Your task to perform on an android device: star an email in the gmail app Image 0: 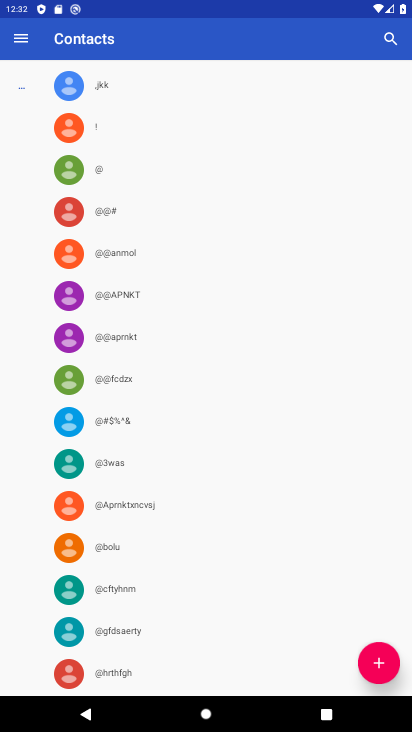
Step 0: press home button
Your task to perform on an android device: star an email in the gmail app Image 1: 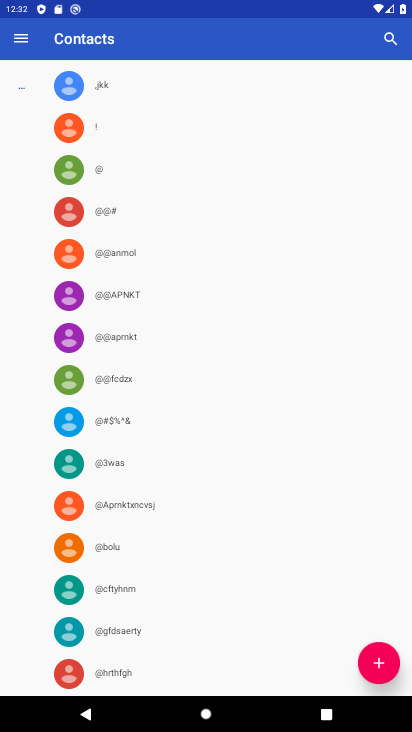
Step 1: press home button
Your task to perform on an android device: star an email in the gmail app Image 2: 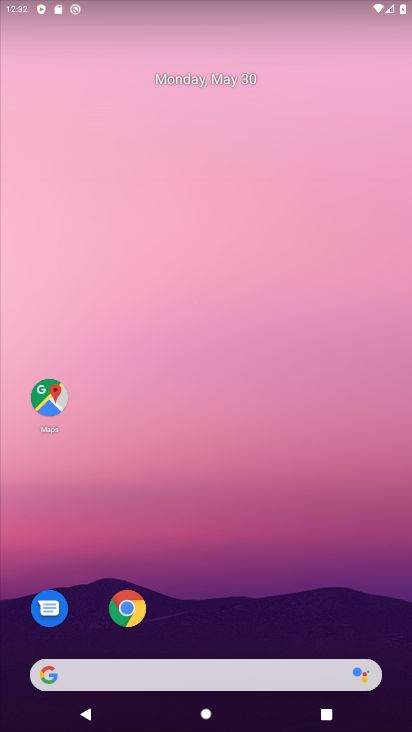
Step 2: drag from (253, 487) to (256, 0)
Your task to perform on an android device: star an email in the gmail app Image 3: 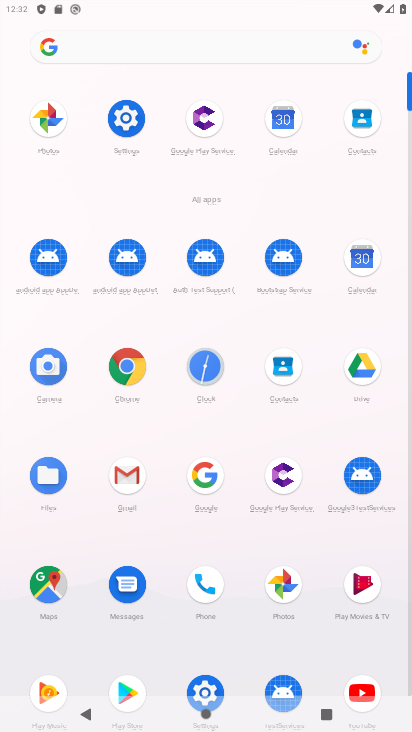
Step 3: click (128, 476)
Your task to perform on an android device: star an email in the gmail app Image 4: 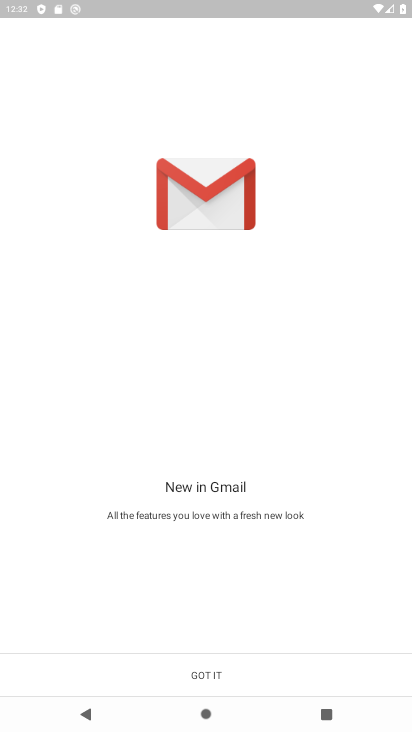
Step 4: click (242, 670)
Your task to perform on an android device: star an email in the gmail app Image 5: 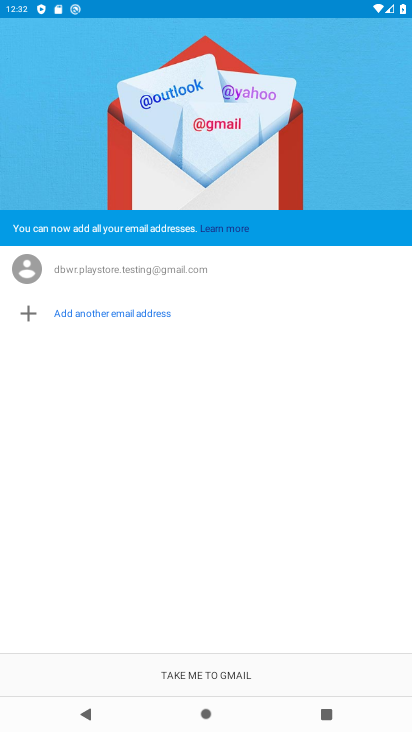
Step 5: click (223, 668)
Your task to perform on an android device: star an email in the gmail app Image 6: 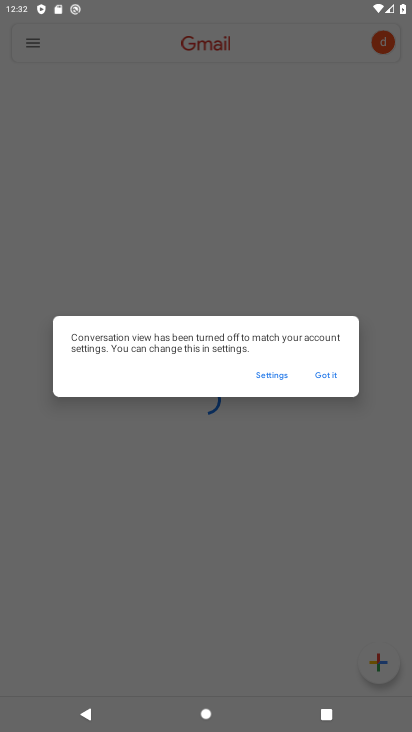
Step 6: click (327, 373)
Your task to perform on an android device: star an email in the gmail app Image 7: 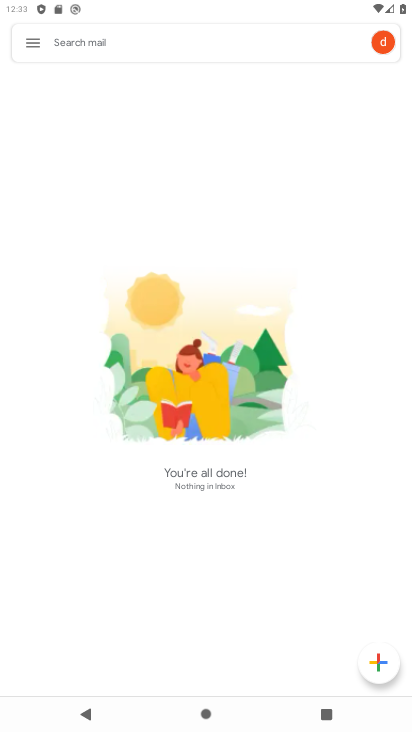
Step 7: task complete